Your task to perform on an android device: toggle location history Image 0: 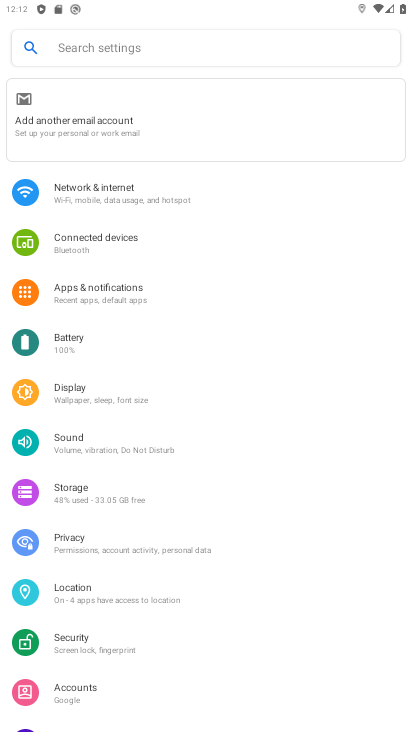
Step 0: click (68, 586)
Your task to perform on an android device: toggle location history Image 1: 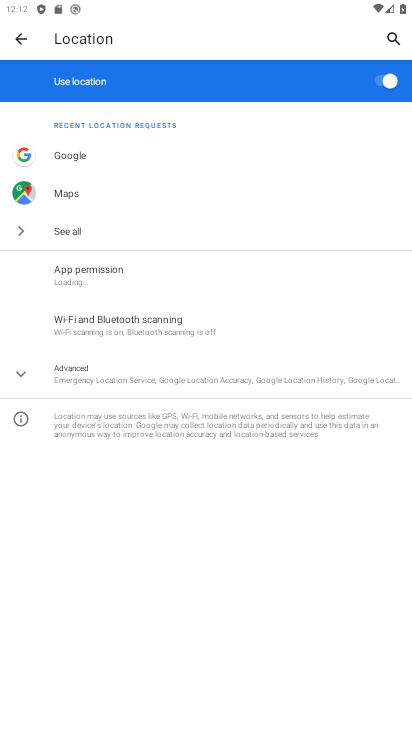
Step 1: click (36, 372)
Your task to perform on an android device: toggle location history Image 2: 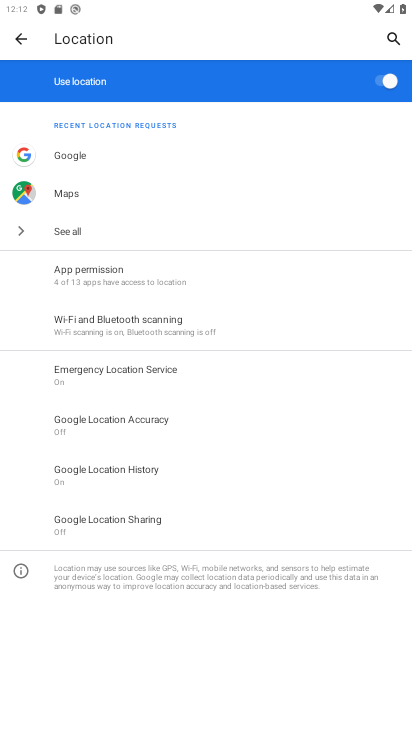
Step 2: click (129, 468)
Your task to perform on an android device: toggle location history Image 3: 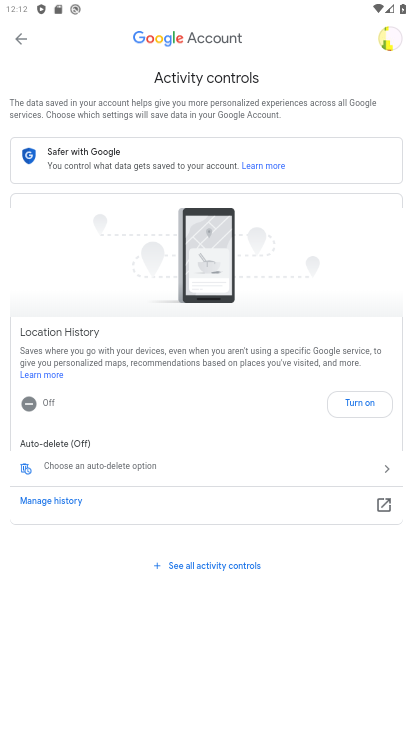
Step 3: click (365, 397)
Your task to perform on an android device: toggle location history Image 4: 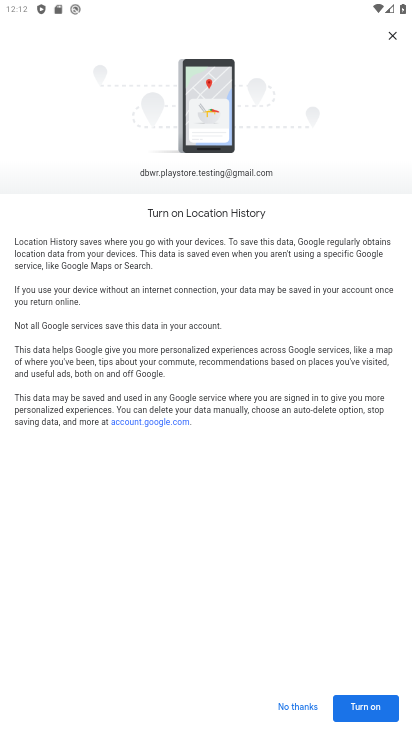
Step 4: click (374, 715)
Your task to perform on an android device: toggle location history Image 5: 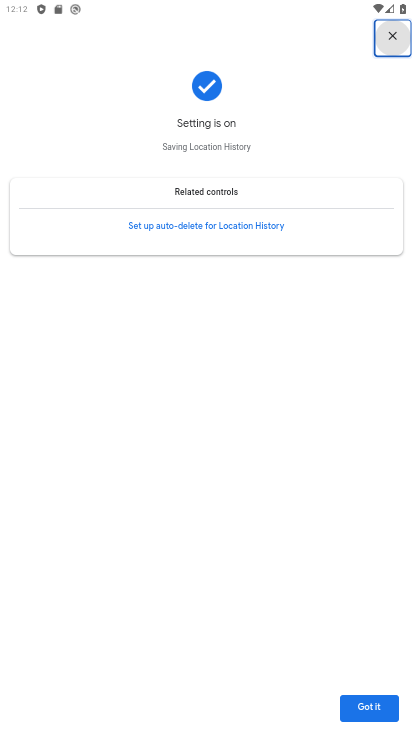
Step 5: click (354, 702)
Your task to perform on an android device: toggle location history Image 6: 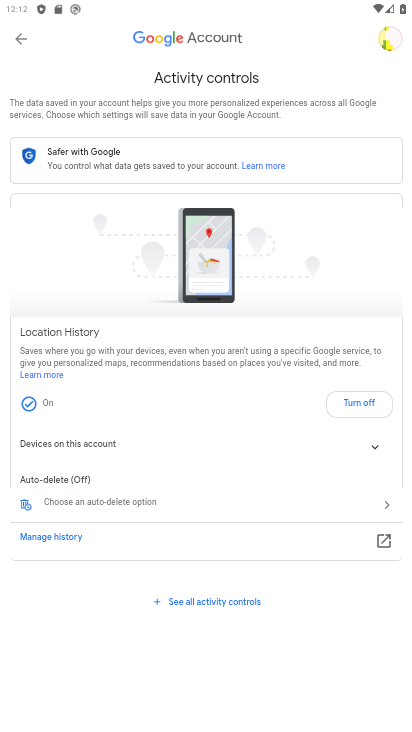
Step 6: task complete